Your task to perform on an android device: see tabs open on other devices in the chrome app Image 0: 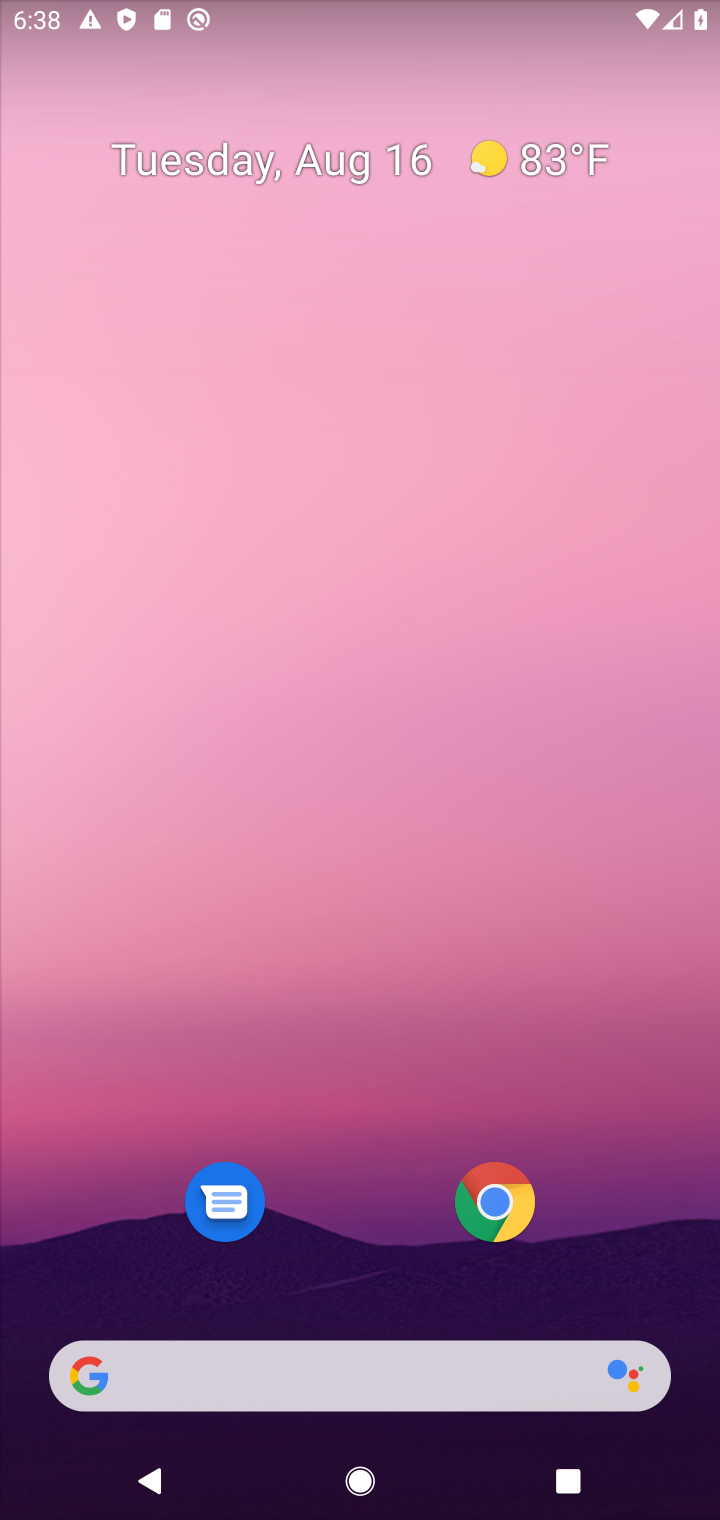
Step 0: drag from (625, 1277) to (287, 15)
Your task to perform on an android device: see tabs open on other devices in the chrome app Image 1: 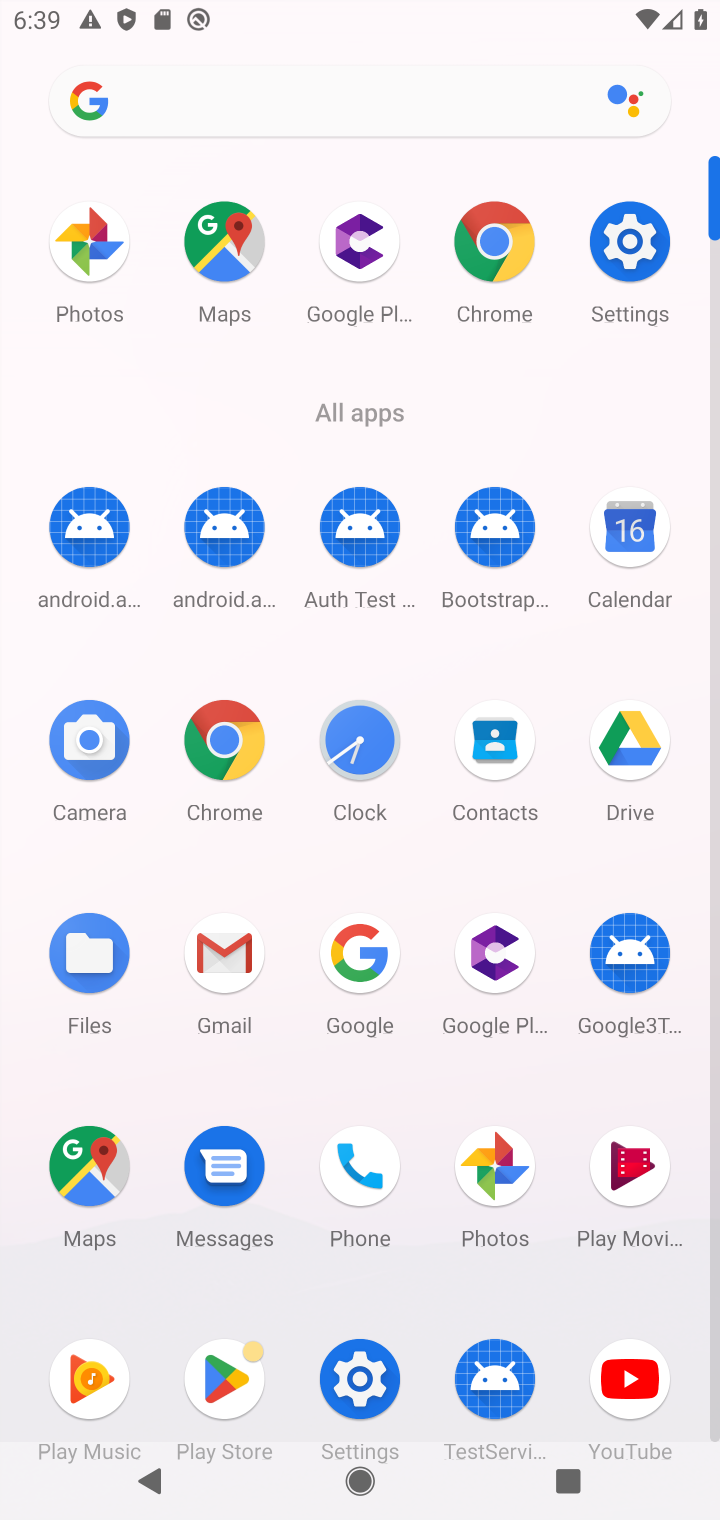
Step 1: click (224, 764)
Your task to perform on an android device: see tabs open on other devices in the chrome app Image 2: 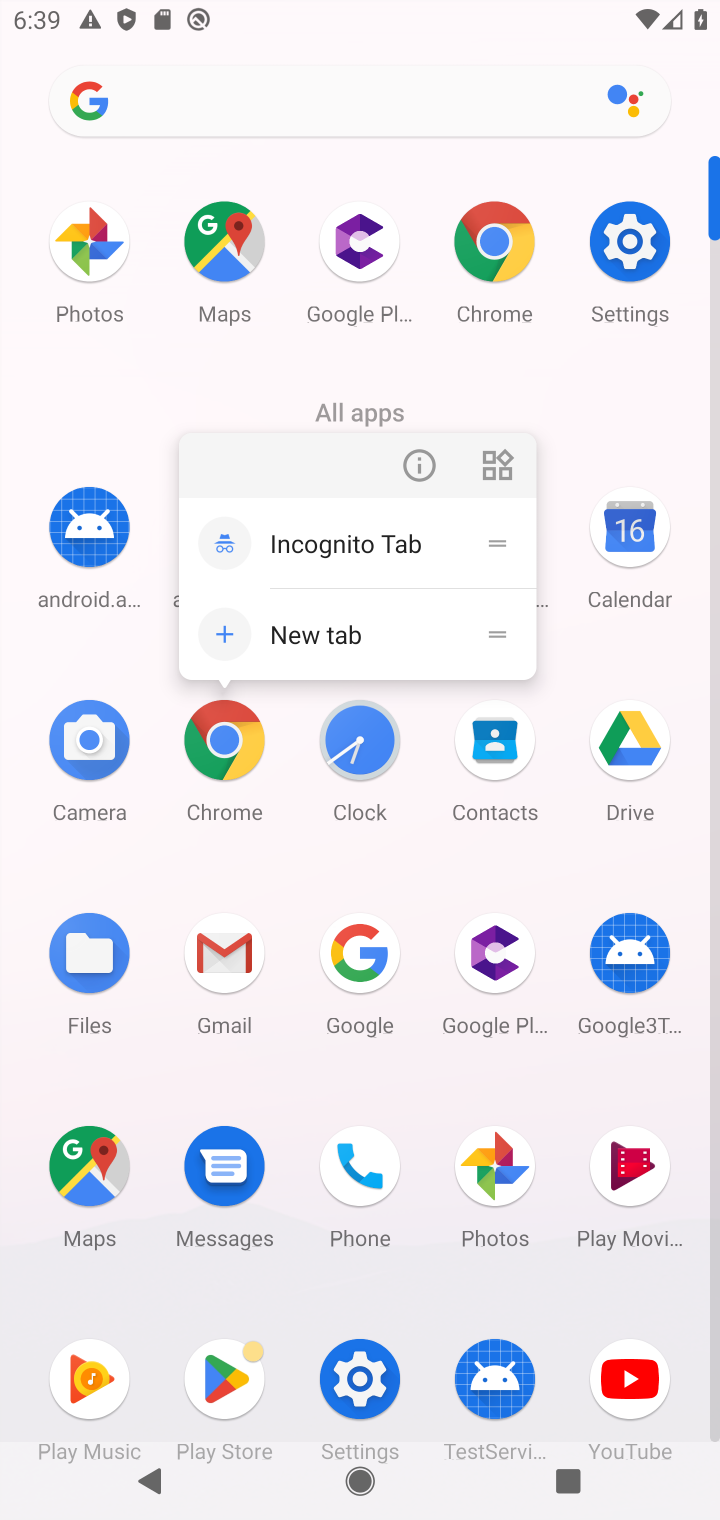
Step 2: click (224, 764)
Your task to perform on an android device: see tabs open on other devices in the chrome app Image 3: 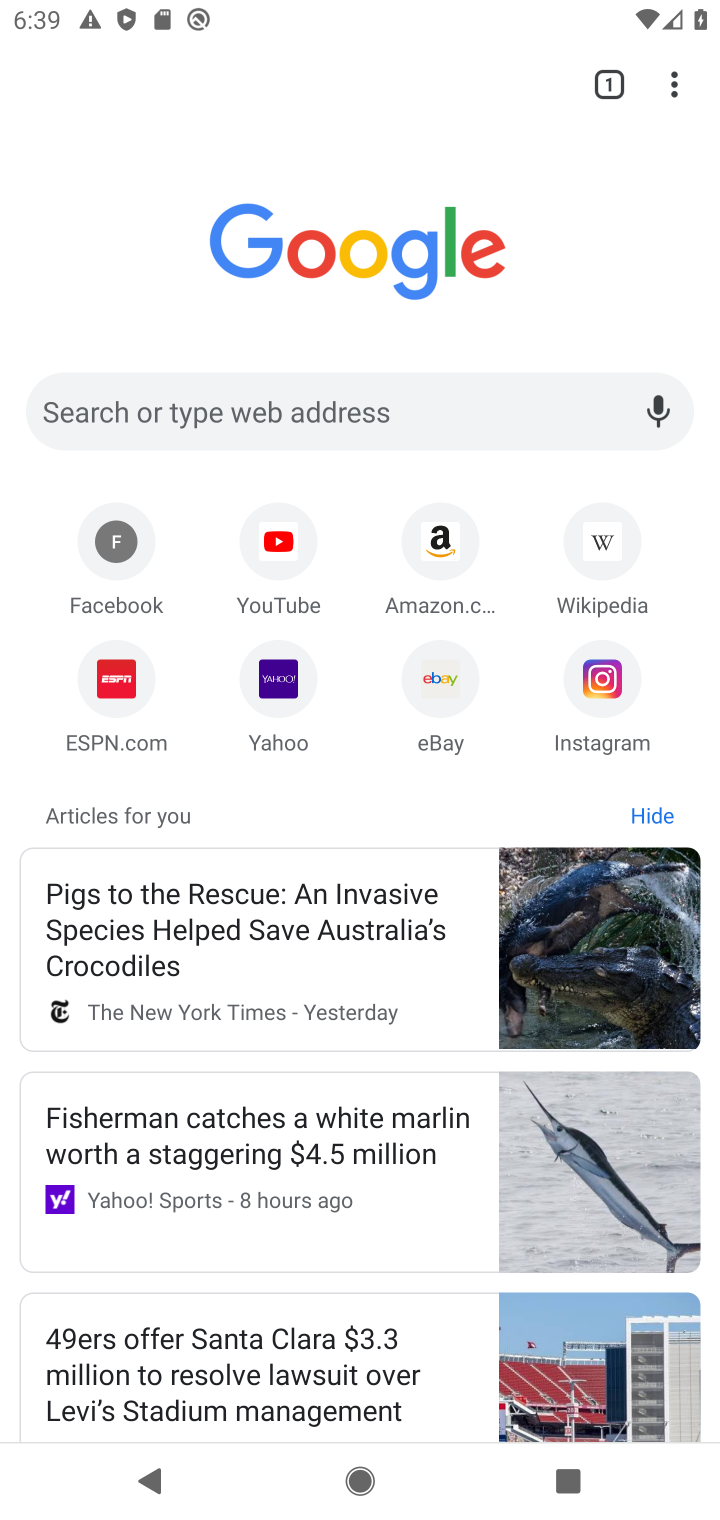
Step 3: task complete